Your task to perform on an android device: turn on priority inbox in the gmail app Image 0: 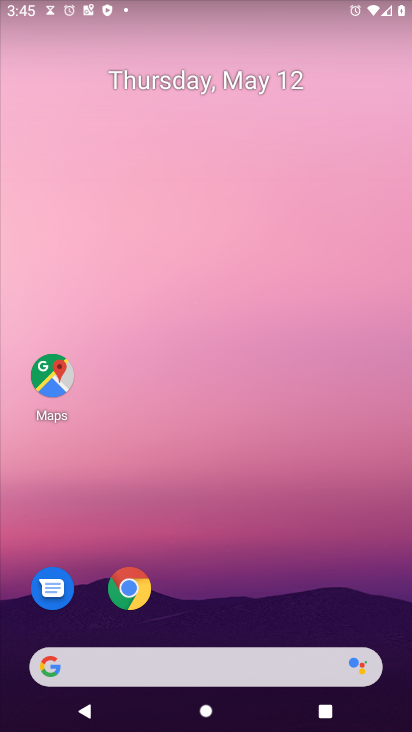
Step 0: drag from (224, 422) to (225, 30)
Your task to perform on an android device: turn on priority inbox in the gmail app Image 1: 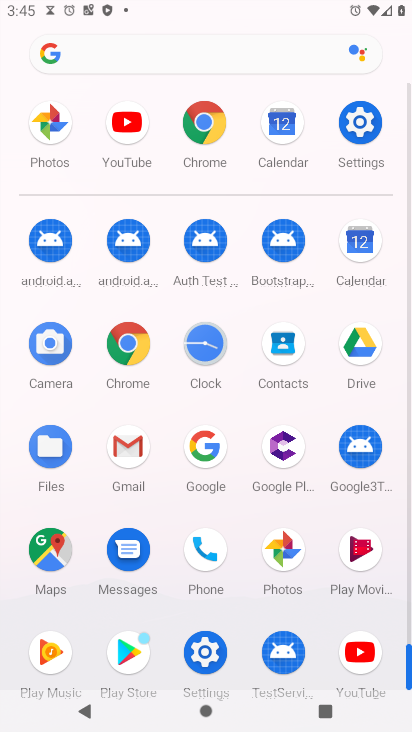
Step 1: click (127, 443)
Your task to perform on an android device: turn on priority inbox in the gmail app Image 2: 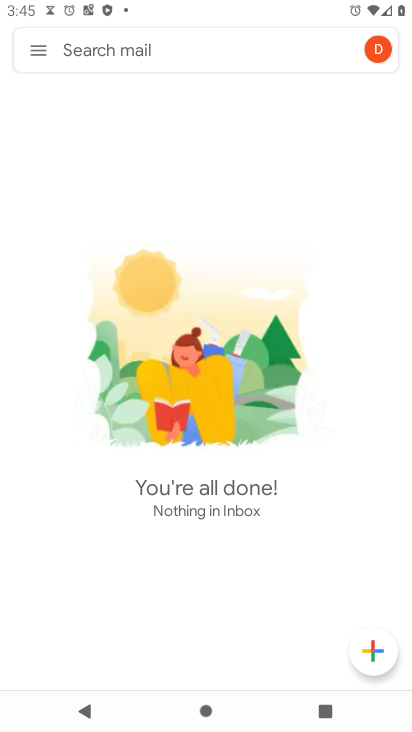
Step 2: click (28, 42)
Your task to perform on an android device: turn on priority inbox in the gmail app Image 3: 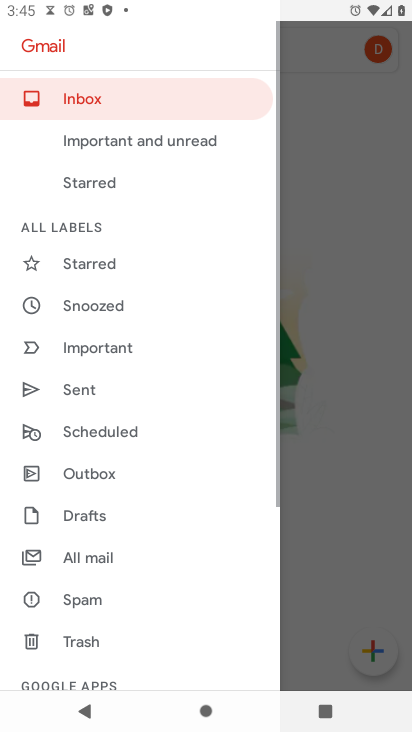
Step 3: drag from (137, 600) to (148, 151)
Your task to perform on an android device: turn on priority inbox in the gmail app Image 4: 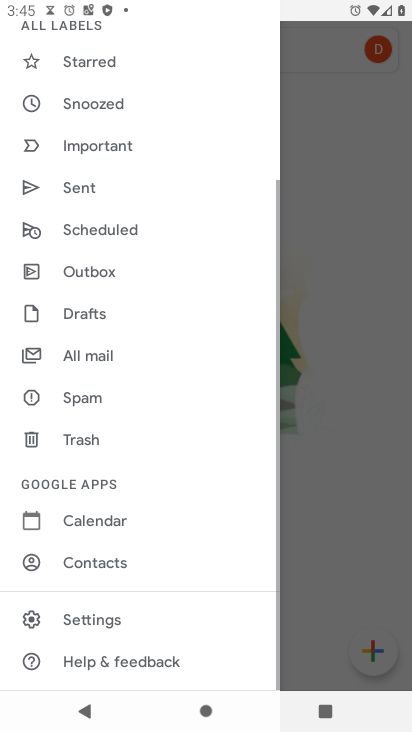
Step 4: click (91, 617)
Your task to perform on an android device: turn on priority inbox in the gmail app Image 5: 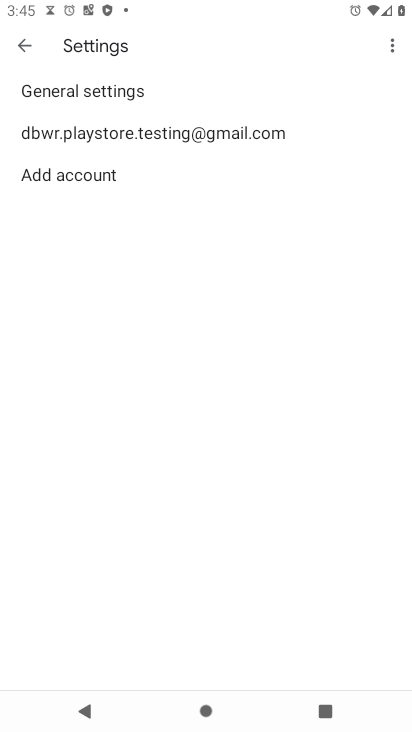
Step 5: click (113, 125)
Your task to perform on an android device: turn on priority inbox in the gmail app Image 6: 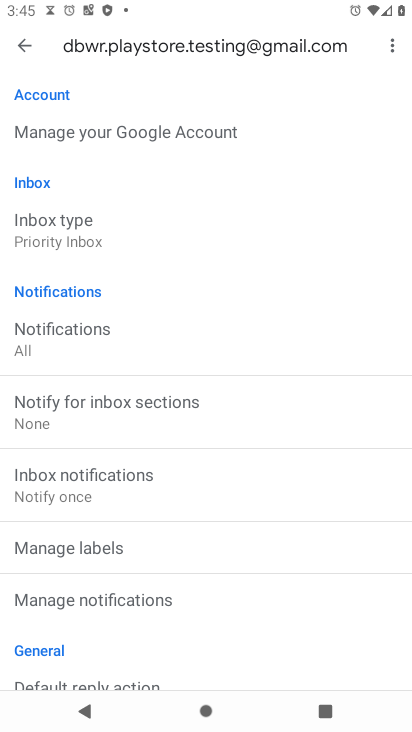
Step 6: click (115, 597)
Your task to perform on an android device: turn on priority inbox in the gmail app Image 7: 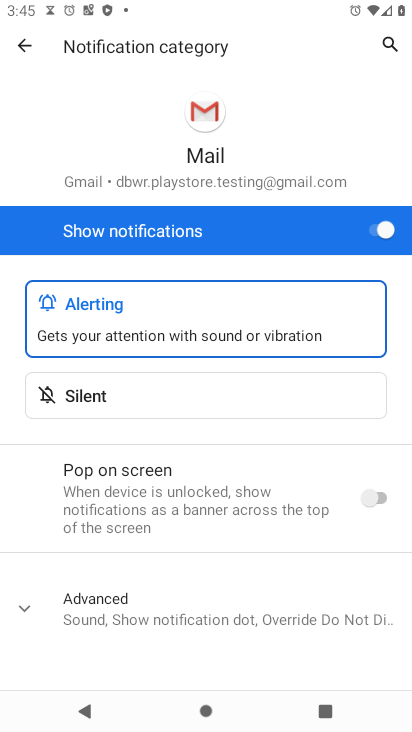
Step 7: task complete